Your task to perform on an android device: check data usage Image 0: 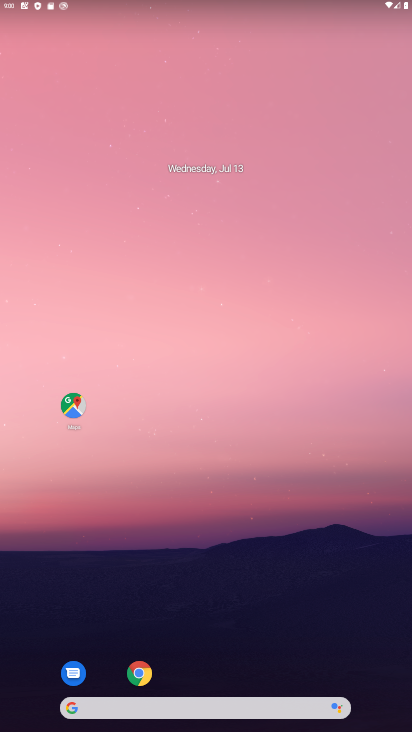
Step 0: drag from (245, 10) to (276, 502)
Your task to perform on an android device: check data usage Image 1: 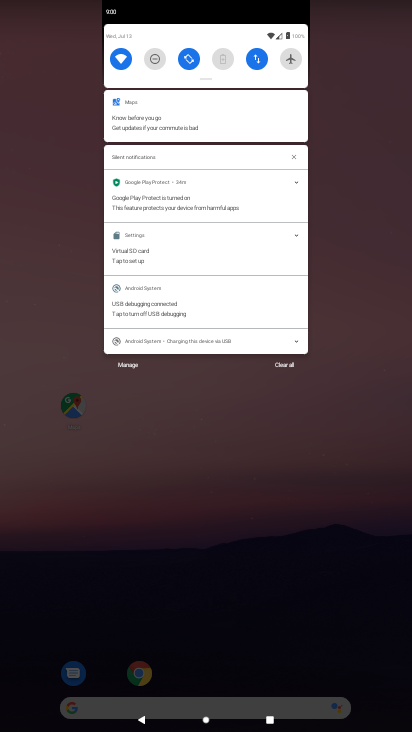
Step 1: click (256, 61)
Your task to perform on an android device: check data usage Image 2: 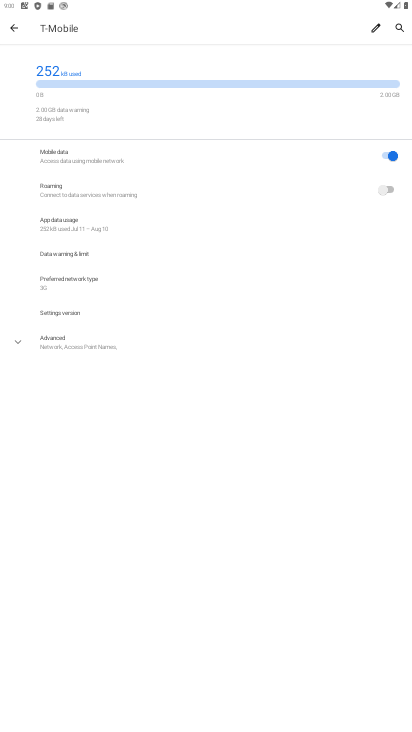
Step 2: task complete